Your task to perform on an android device: Go to ESPN.com Image 0: 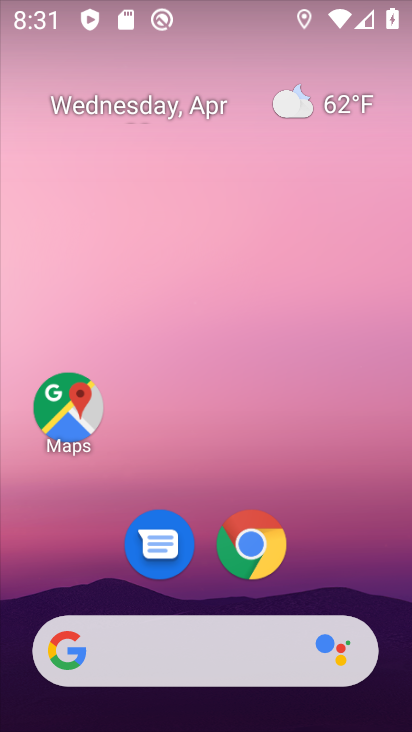
Step 0: click (254, 559)
Your task to perform on an android device: Go to ESPN.com Image 1: 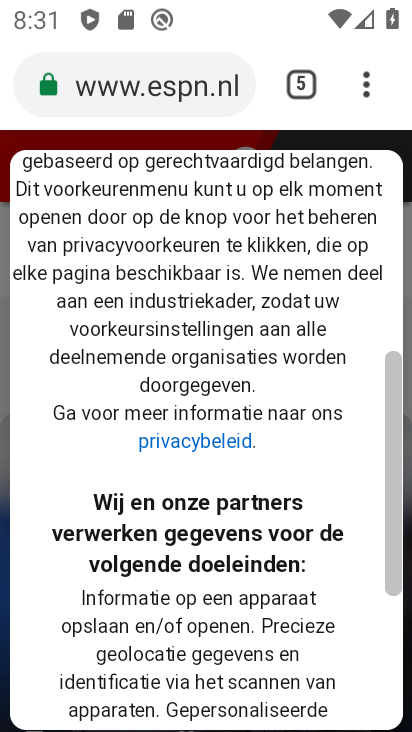
Step 1: click (308, 86)
Your task to perform on an android device: Go to ESPN.com Image 2: 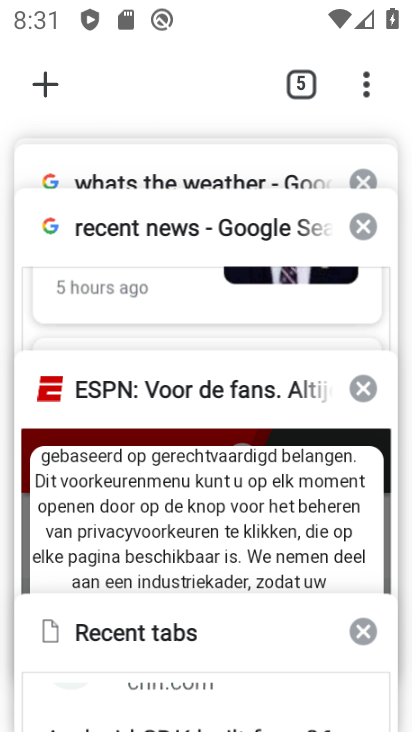
Step 2: click (241, 459)
Your task to perform on an android device: Go to ESPN.com Image 3: 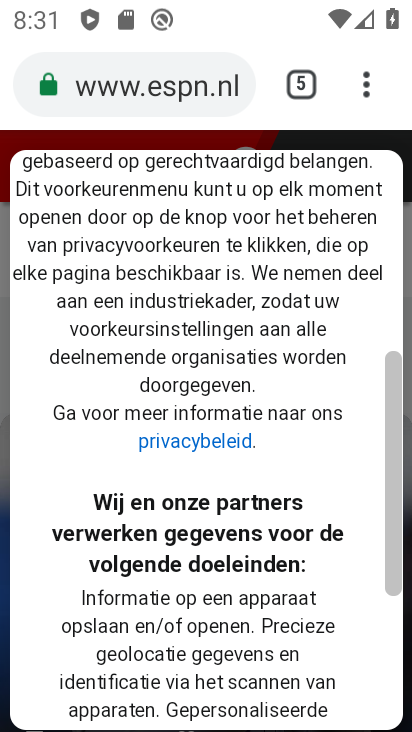
Step 3: task complete